Your task to perform on an android device: change the clock display to show seconds Image 0: 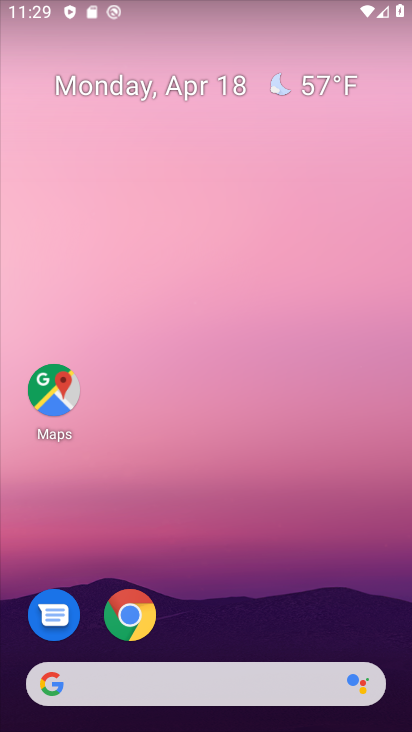
Step 0: drag from (217, 640) to (191, 216)
Your task to perform on an android device: change the clock display to show seconds Image 1: 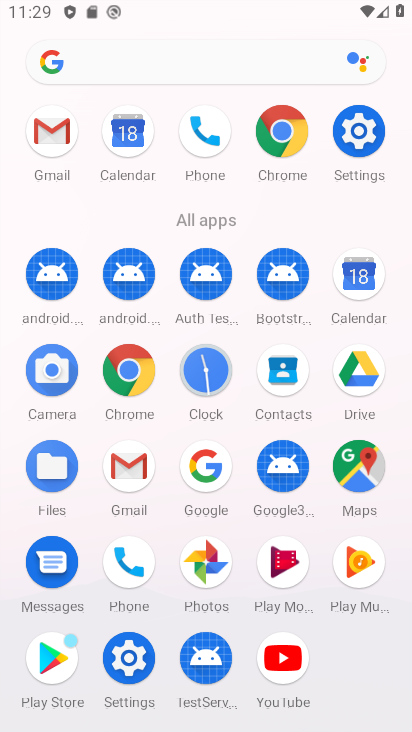
Step 1: click (202, 385)
Your task to perform on an android device: change the clock display to show seconds Image 2: 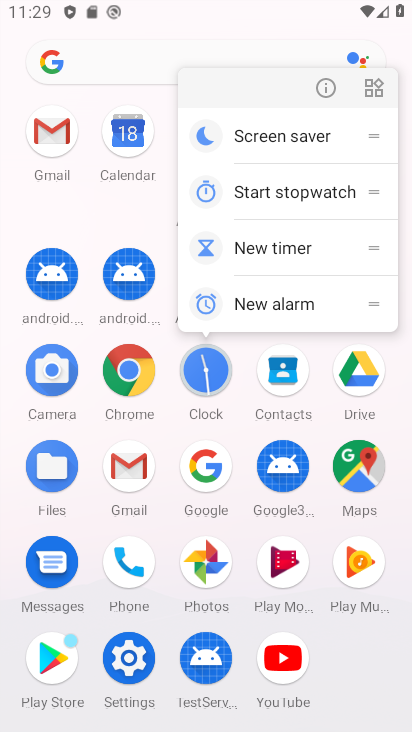
Step 2: click (129, 207)
Your task to perform on an android device: change the clock display to show seconds Image 3: 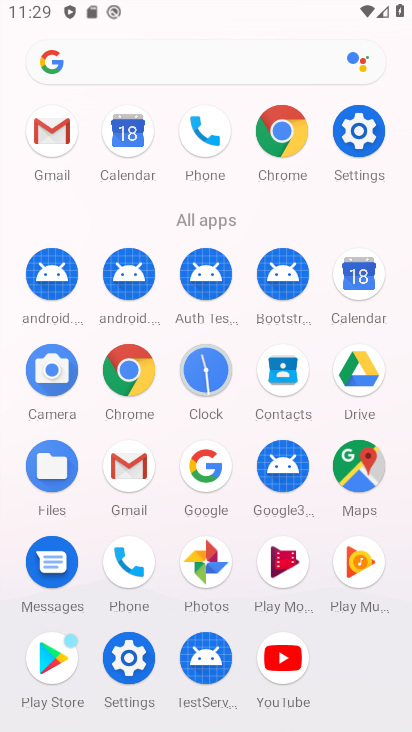
Step 3: click (210, 373)
Your task to perform on an android device: change the clock display to show seconds Image 4: 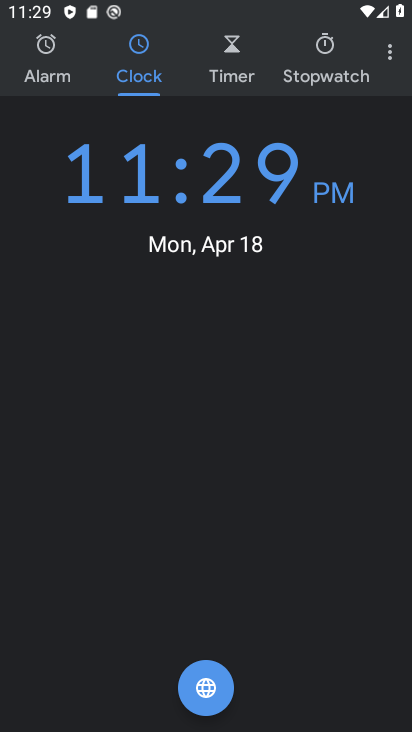
Step 4: click (389, 50)
Your task to perform on an android device: change the clock display to show seconds Image 5: 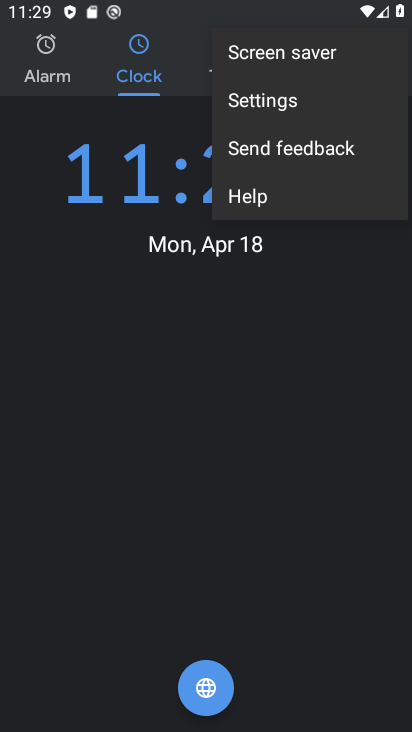
Step 5: click (293, 99)
Your task to perform on an android device: change the clock display to show seconds Image 6: 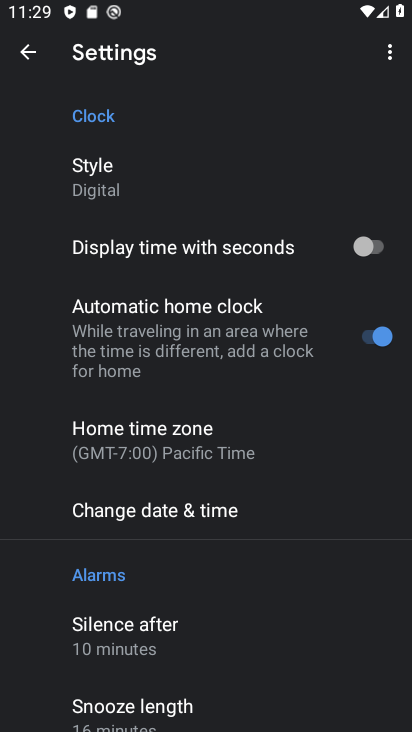
Step 6: click (376, 249)
Your task to perform on an android device: change the clock display to show seconds Image 7: 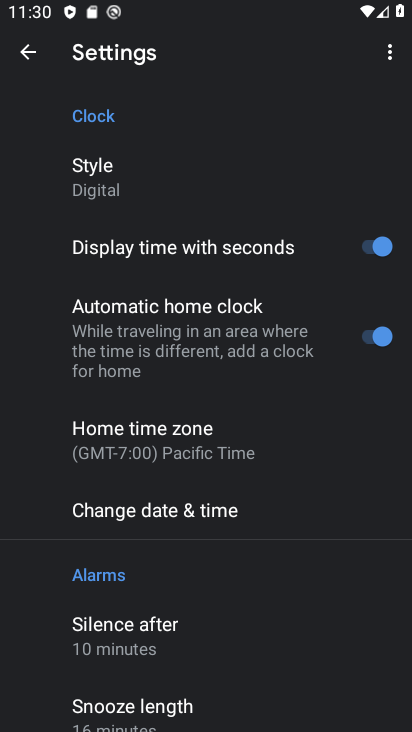
Step 7: task complete